Your task to perform on an android device: open a bookmark in the chrome app Image 0: 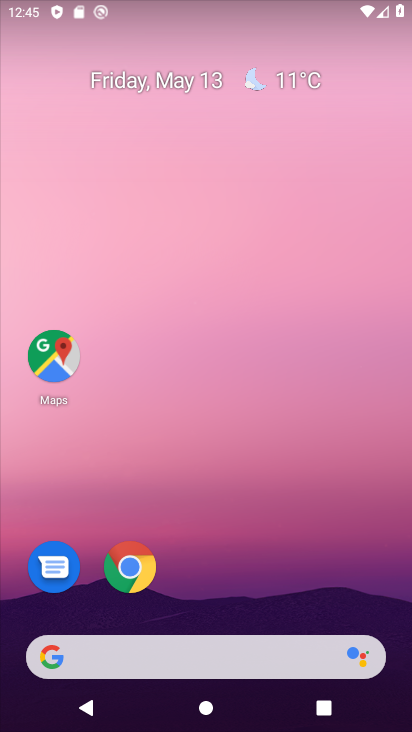
Step 0: click (131, 565)
Your task to perform on an android device: open a bookmark in the chrome app Image 1: 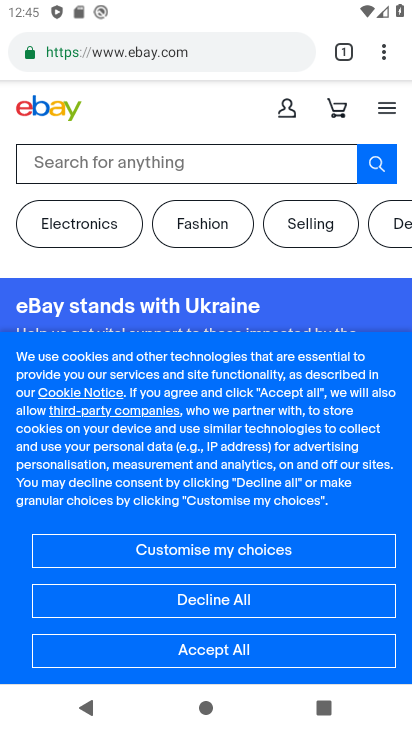
Step 1: click (388, 51)
Your task to perform on an android device: open a bookmark in the chrome app Image 2: 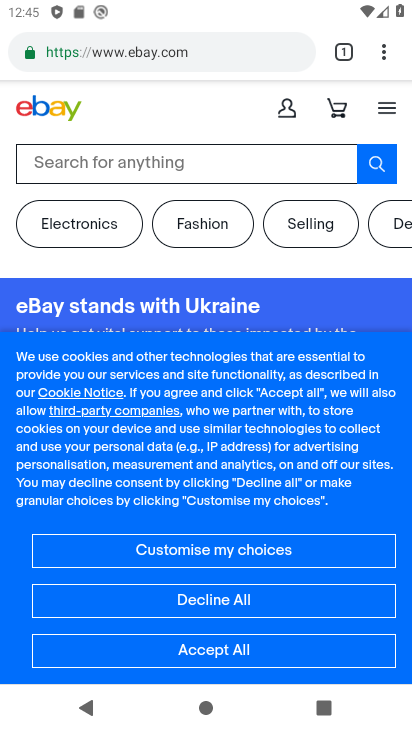
Step 2: click (385, 59)
Your task to perform on an android device: open a bookmark in the chrome app Image 3: 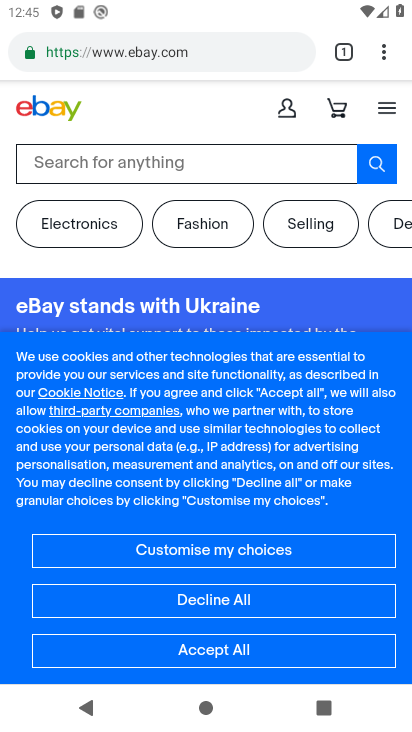
Step 3: click (382, 51)
Your task to perform on an android device: open a bookmark in the chrome app Image 4: 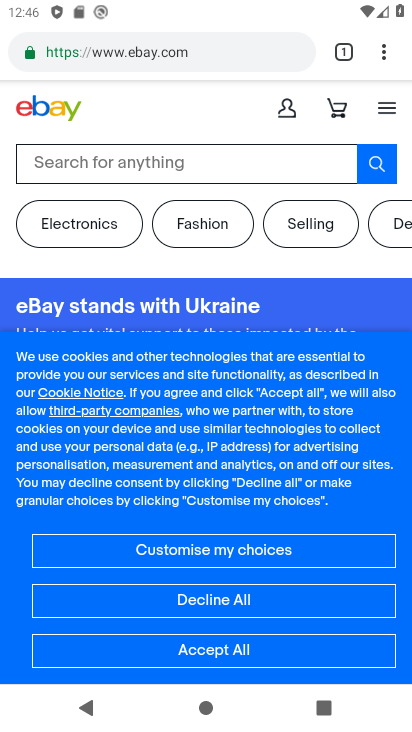
Step 4: click (388, 54)
Your task to perform on an android device: open a bookmark in the chrome app Image 5: 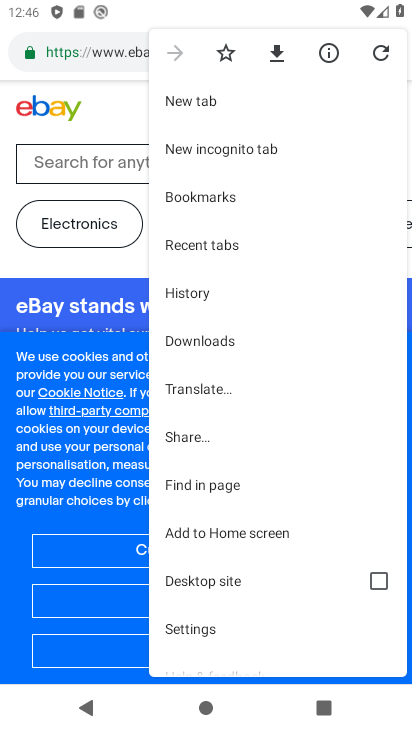
Step 5: click (222, 195)
Your task to perform on an android device: open a bookmark in the chrome app Image 6: 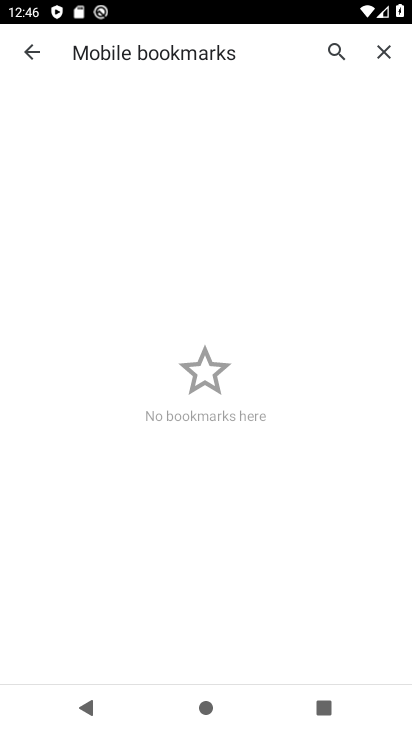
Step 6: task complete